Your task to perform on an android device: Show the shopping cart on newegg. Image 0: 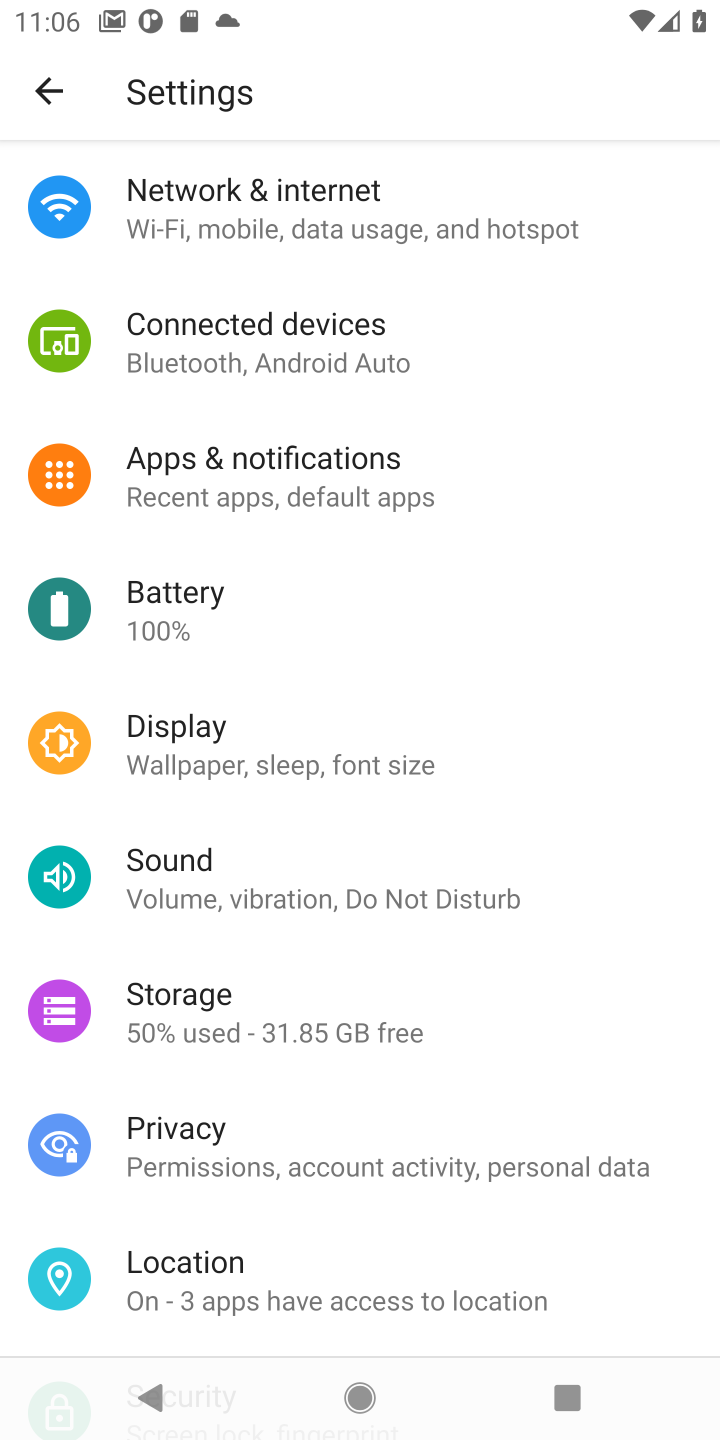
Step 0: press home button
Your task to perform on an android device: Show the shopping cart on newegg. Image 1: 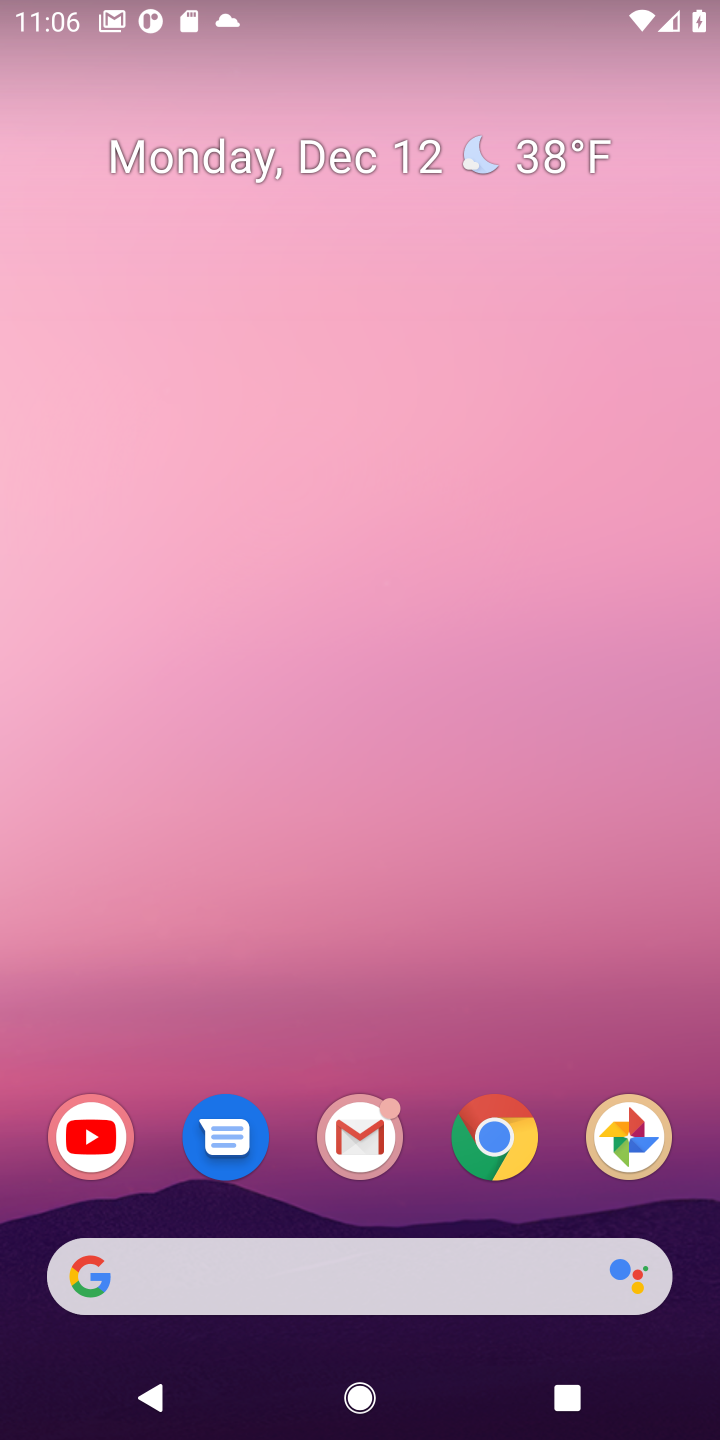
Step 1: click (410, 1291)
Your task to perform on an android device: Show the shopping cart on newegg. Image 2: 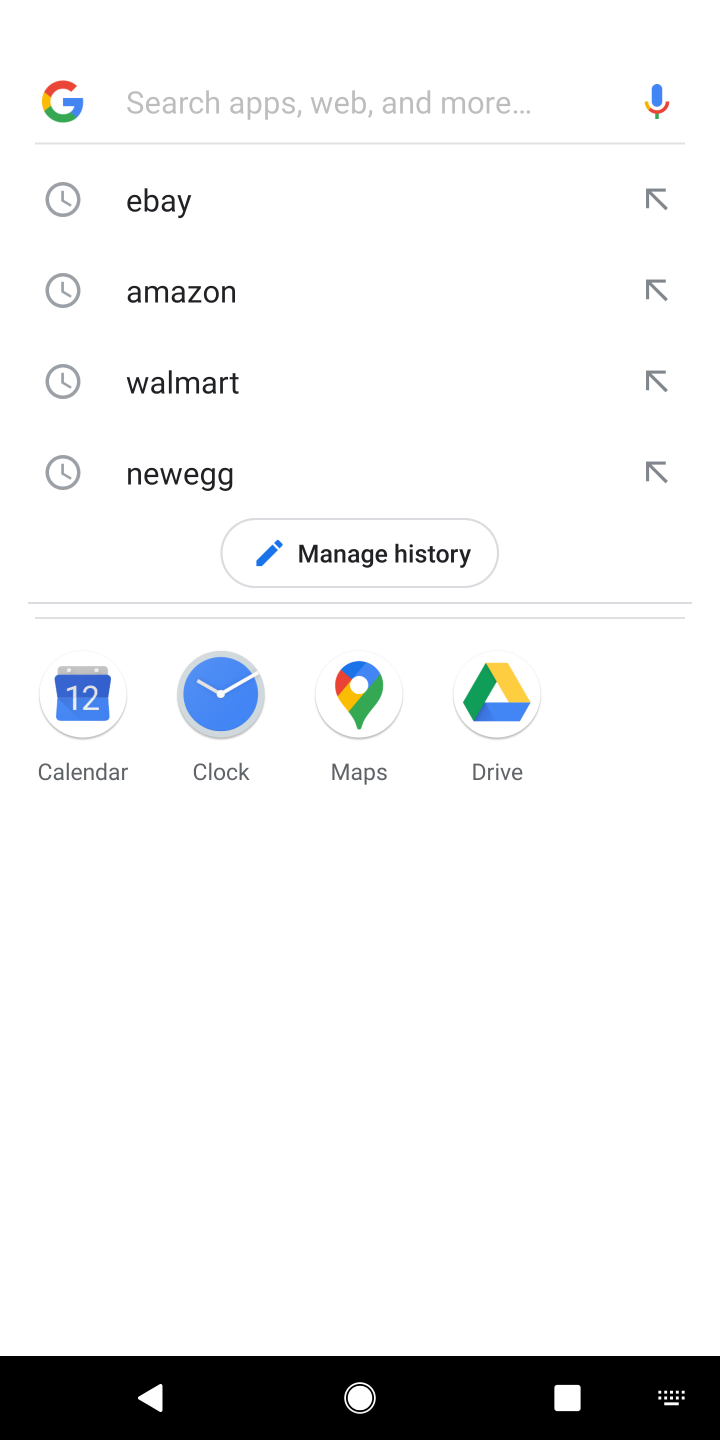
Step 2: type "newegg"
Your task to perform on an android device: Show the shopping cart on newegg. Image 3: 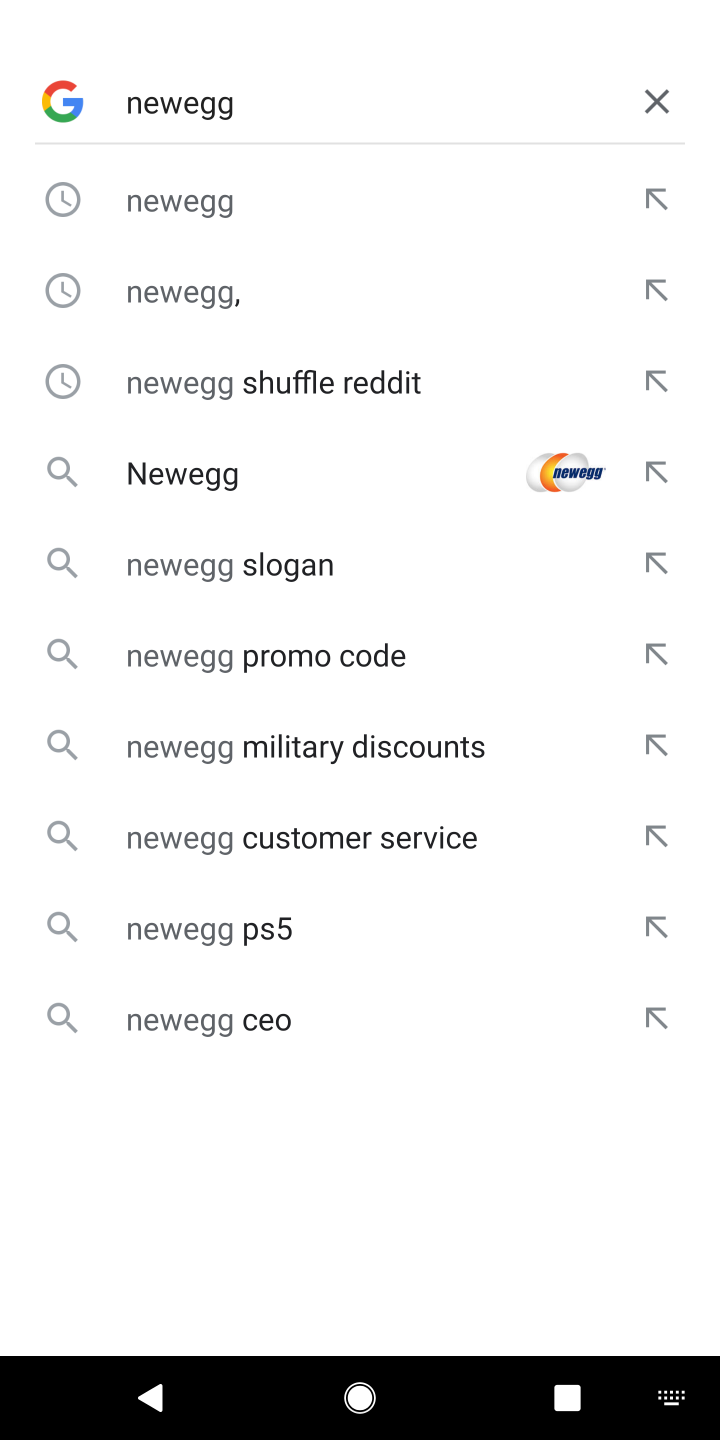
Step 3: click (285, 482)
Your task to perform on an android device: Show the shopping cart on newegg. Image 4: 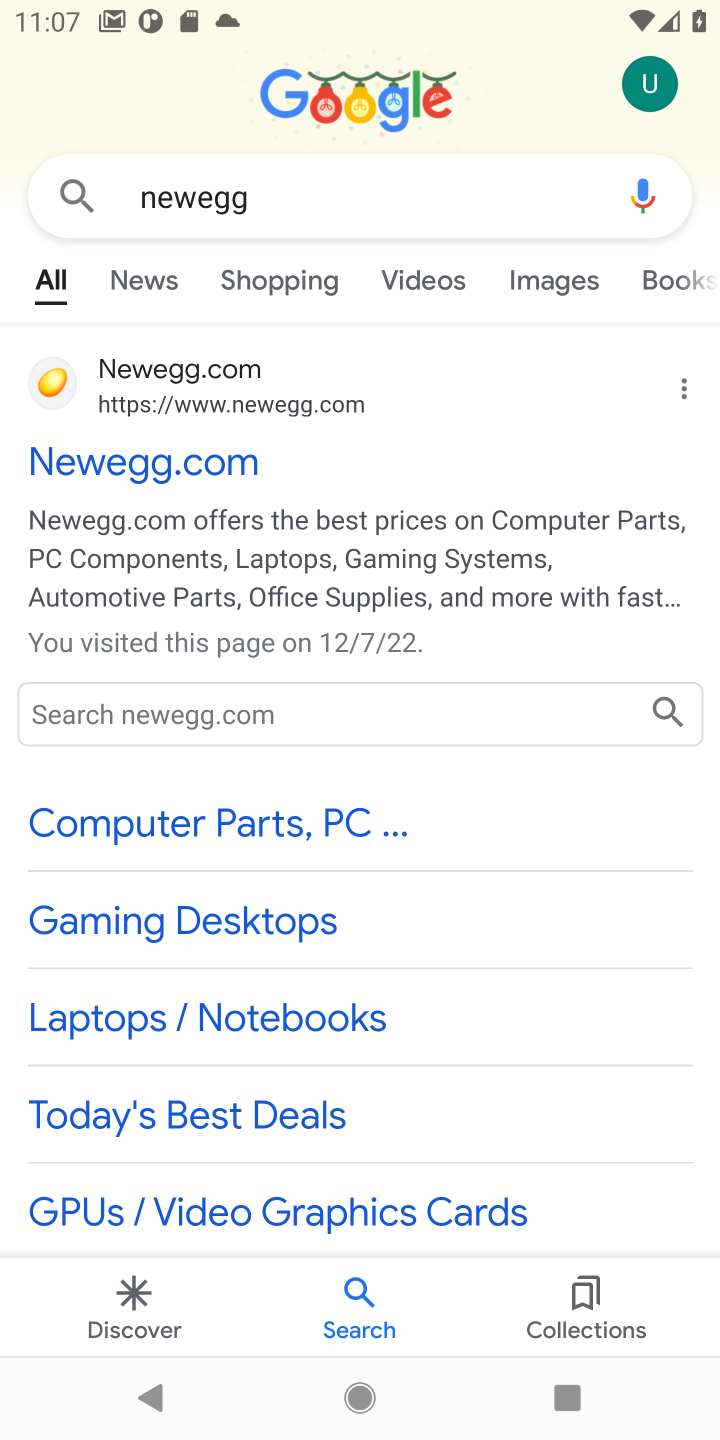
Step 4: click (182, 485)
Your task to perform on an android device: Show the shopping cart on newegg. Image 5: 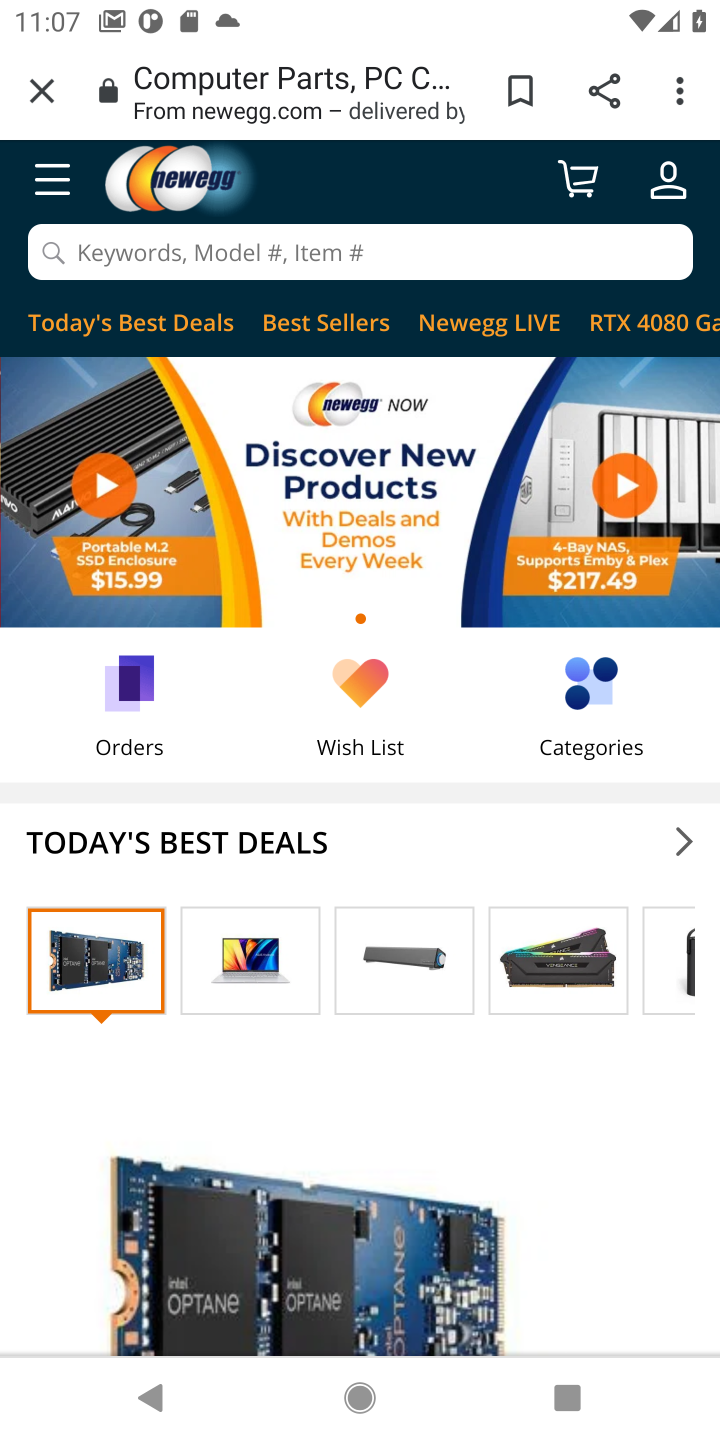
Step 5: click (581, 189)
Your task to perform on an android device: Show the shopping cart on newegg. Image 6: 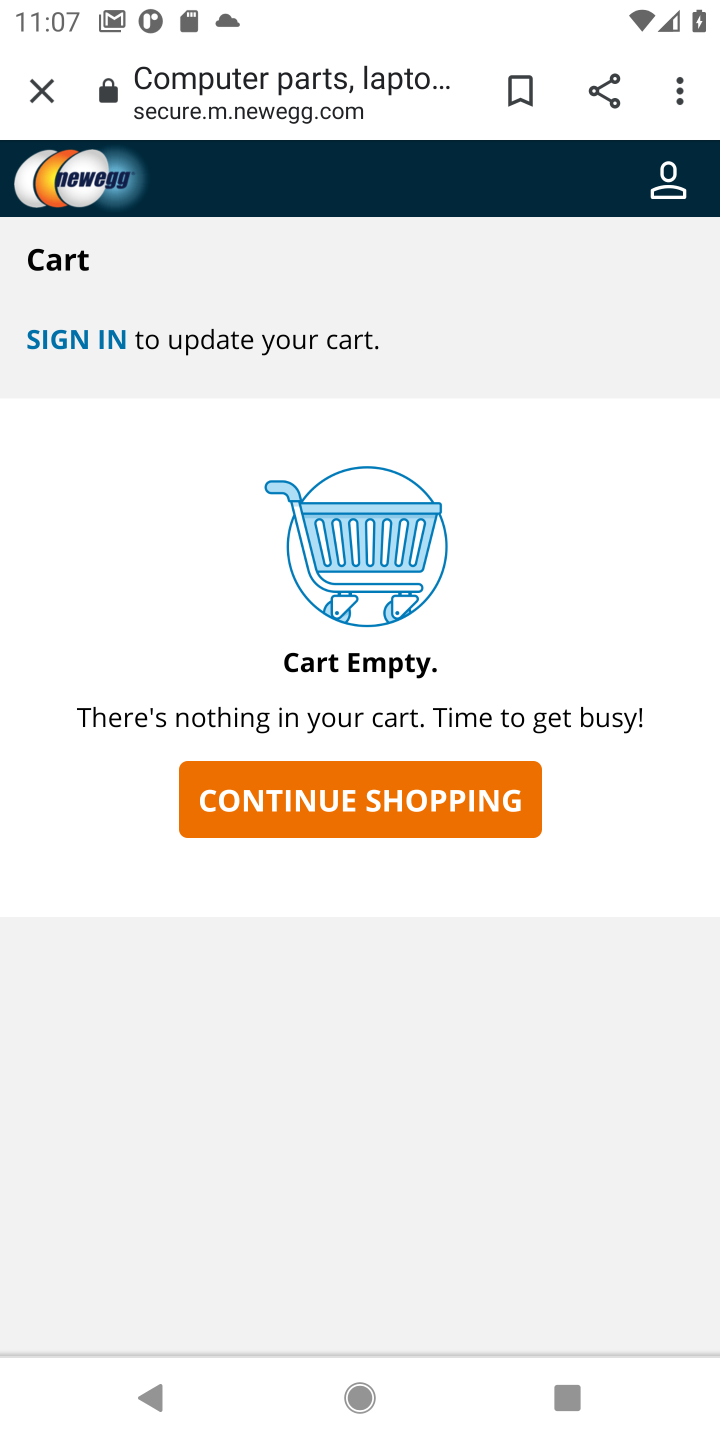
Step 6: task complete